Your task to perform on an android device: uninstall "DoorDash - Dasher" Image 0: 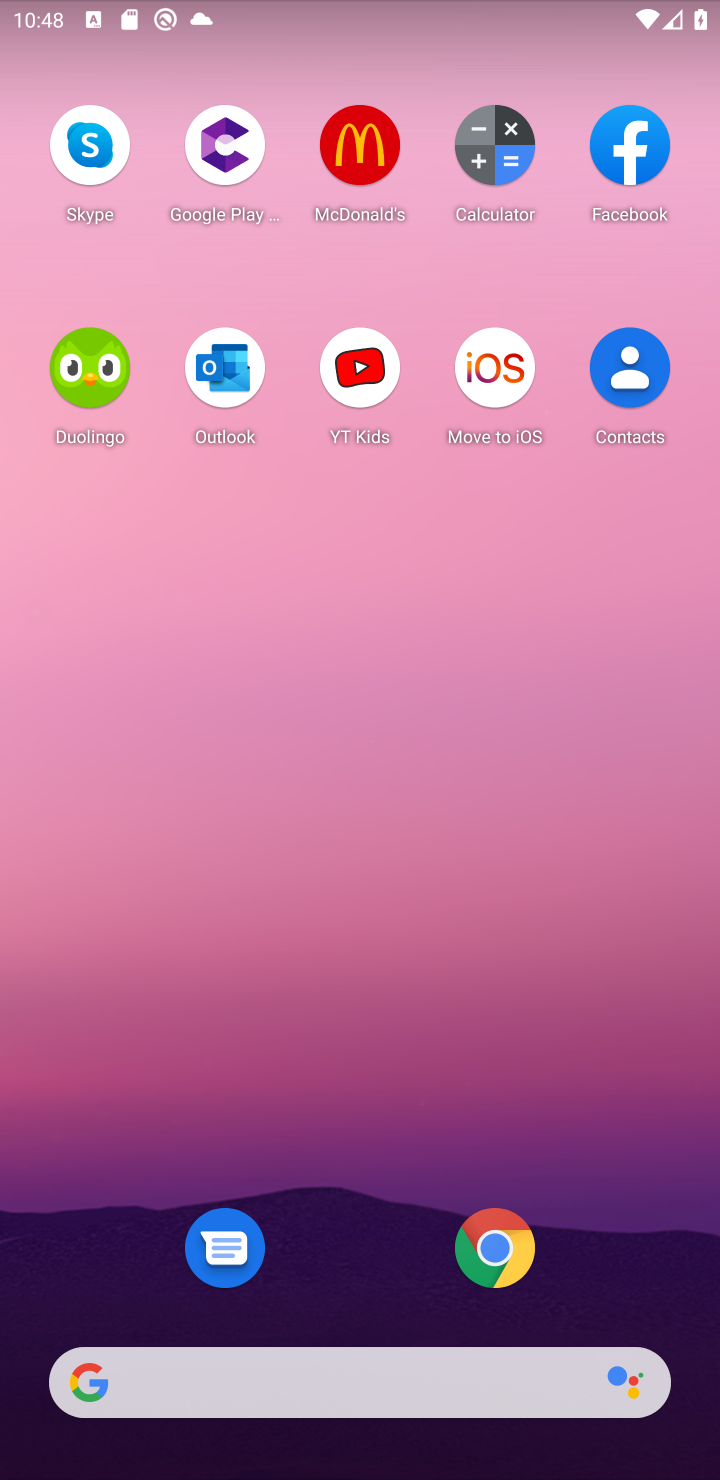
Step 0: drag from (360, 1158) to (434, 282)
Your task to perform on an android device: uninstall "DoorDash - Dasher" Image 1: 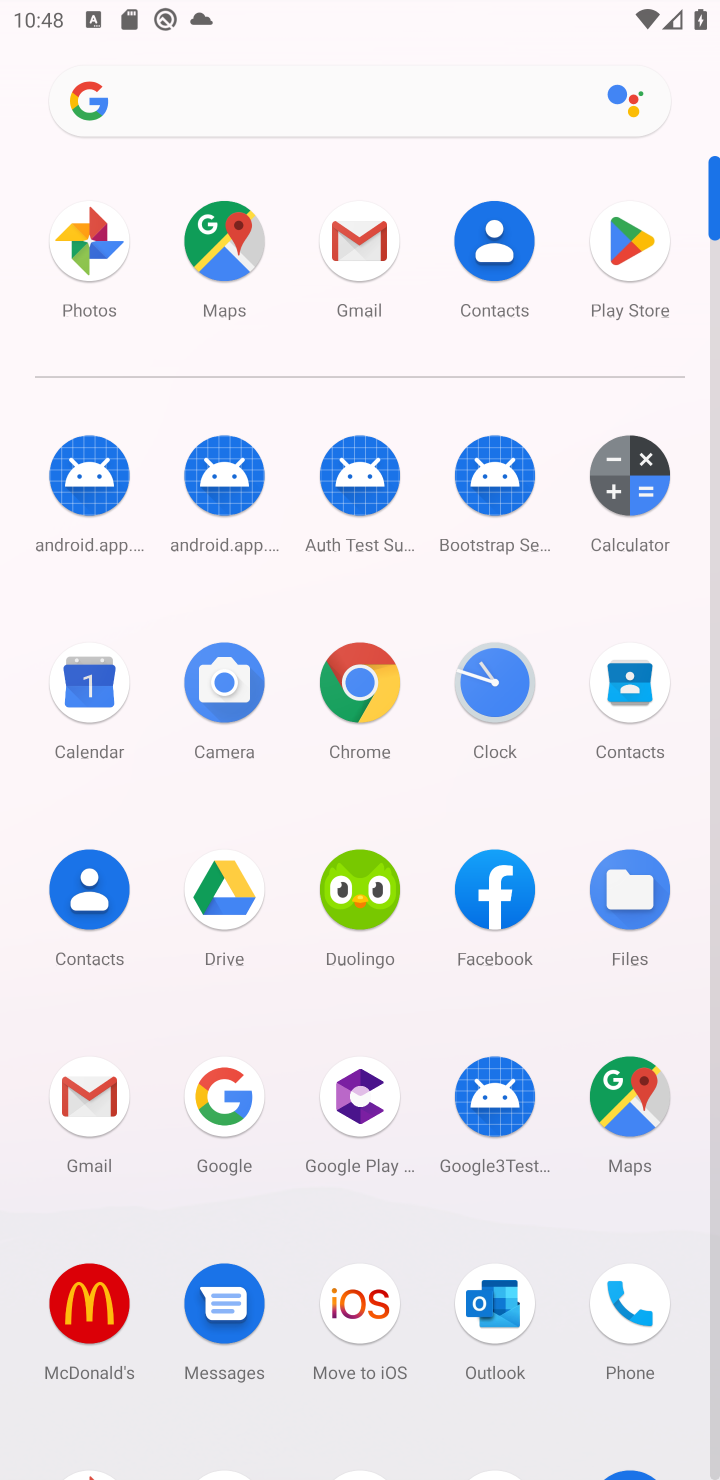
Step 1: drag from (415, 1187) to (436, 537)
Your task to perform on an android device: uninstall "DoorDash - Dasher" Image 2: 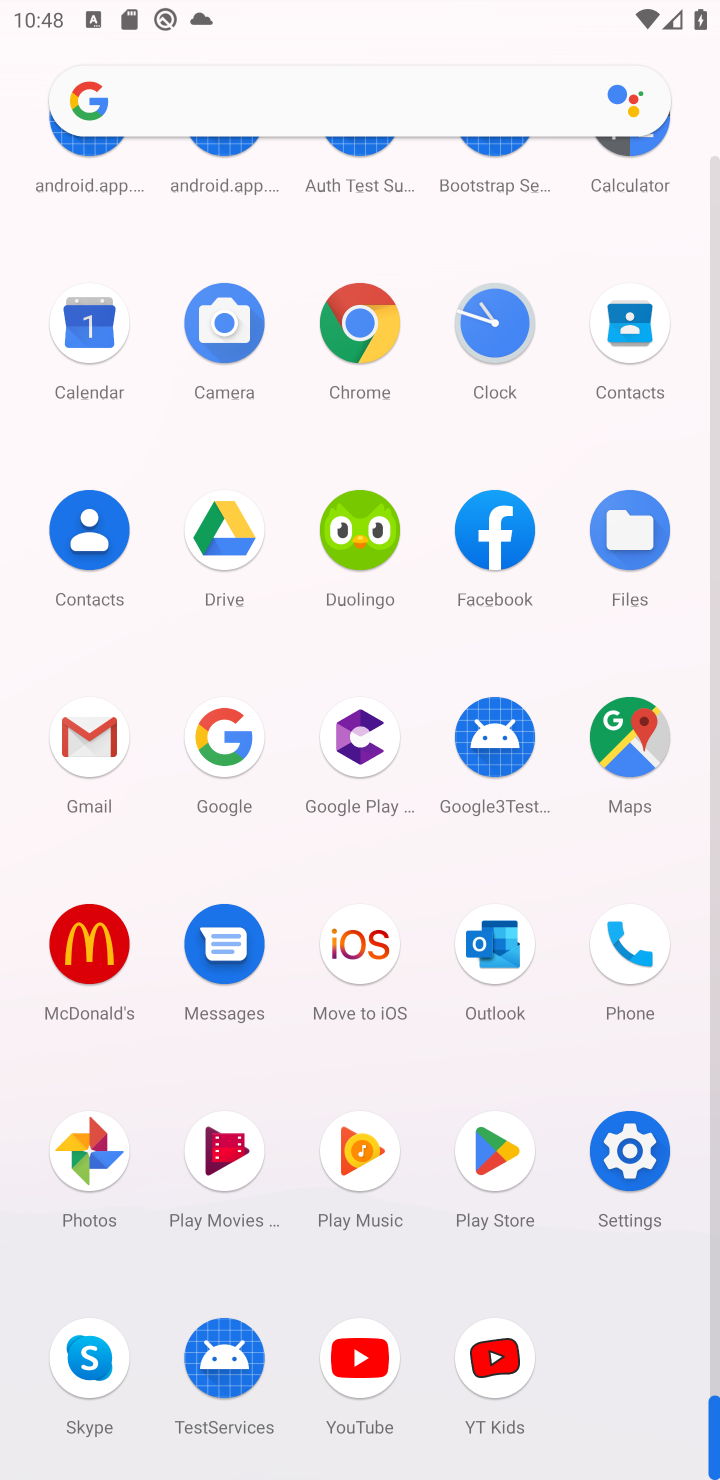
Step 2: click (519, 1148)
Your task to perform on an android device: uninstall "DoorDash - Dasher" Image 3: 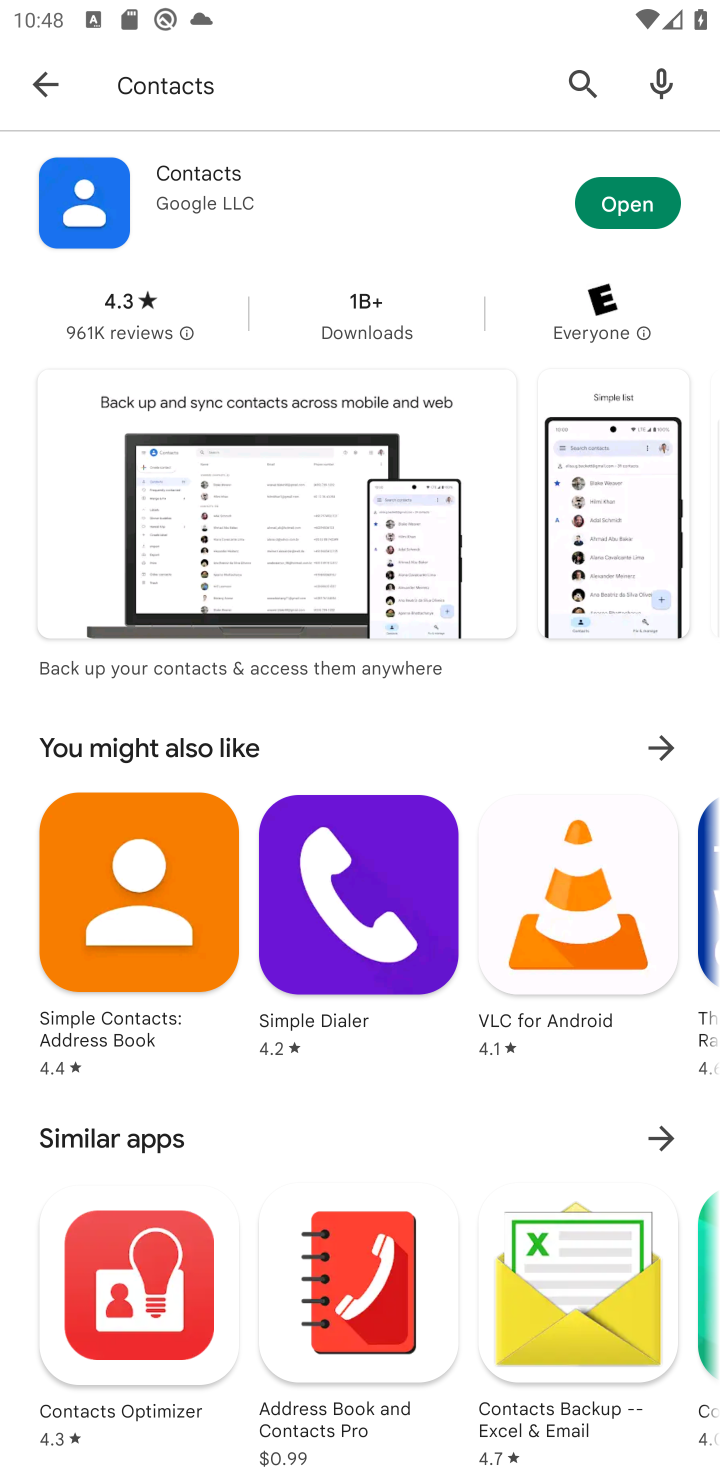
Step 3: click (266, 95)
Your task to perform on an android device: uninstall "DoorDash - Dasher" Image 4: 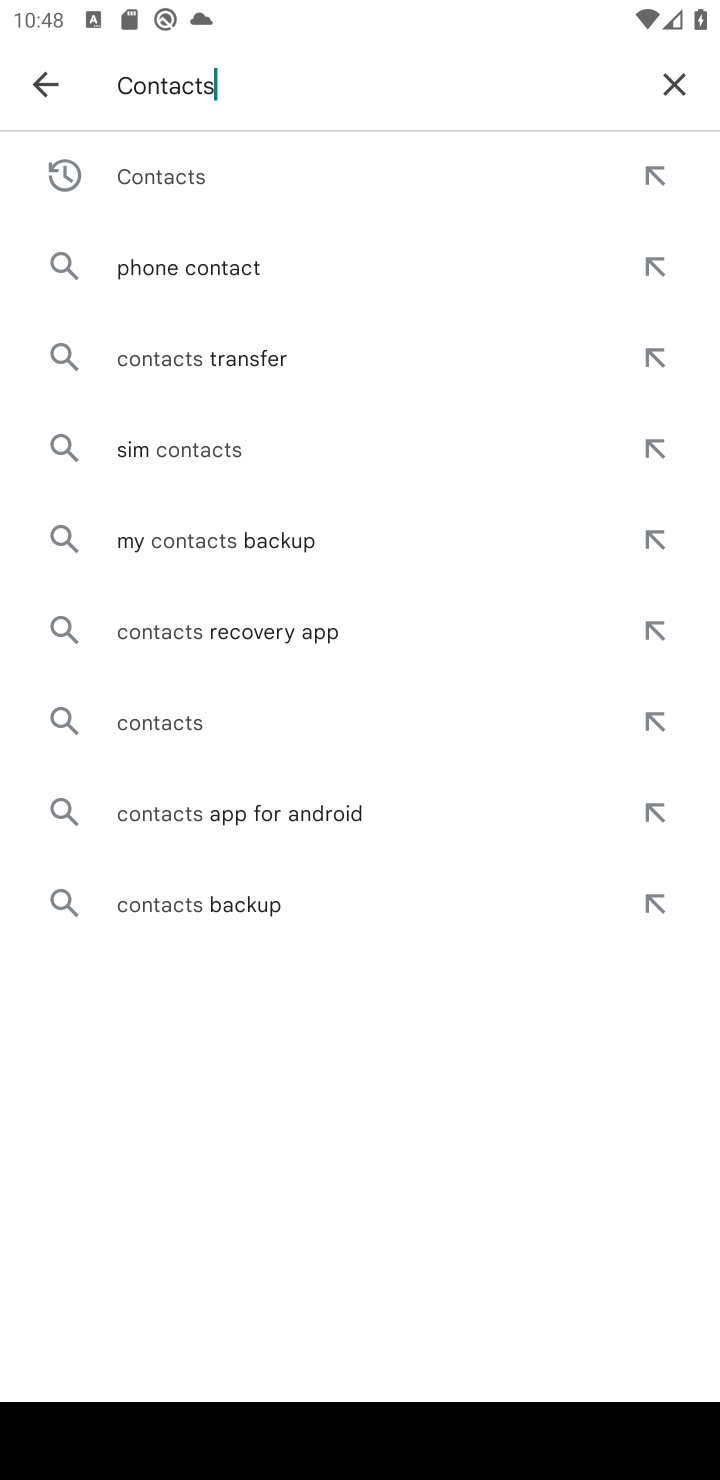
Step 4: click (682, 65)
Your task to perform on an android device: uninstall "DoorDash - Dasher" Image 5: 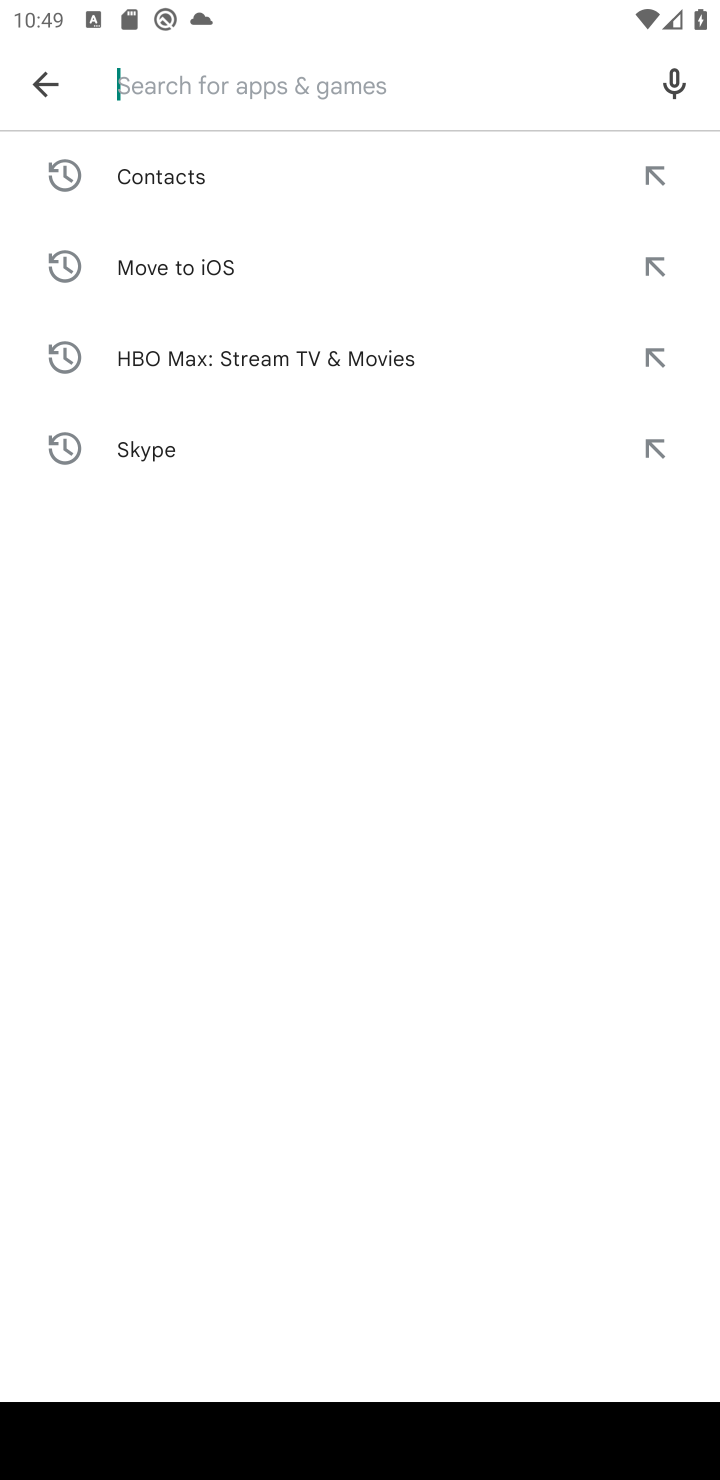
Step 5: type "DoorDash - Dasher"
Your task to perform on an android device: uninstall "DoorDash - Dasher" Image 6: 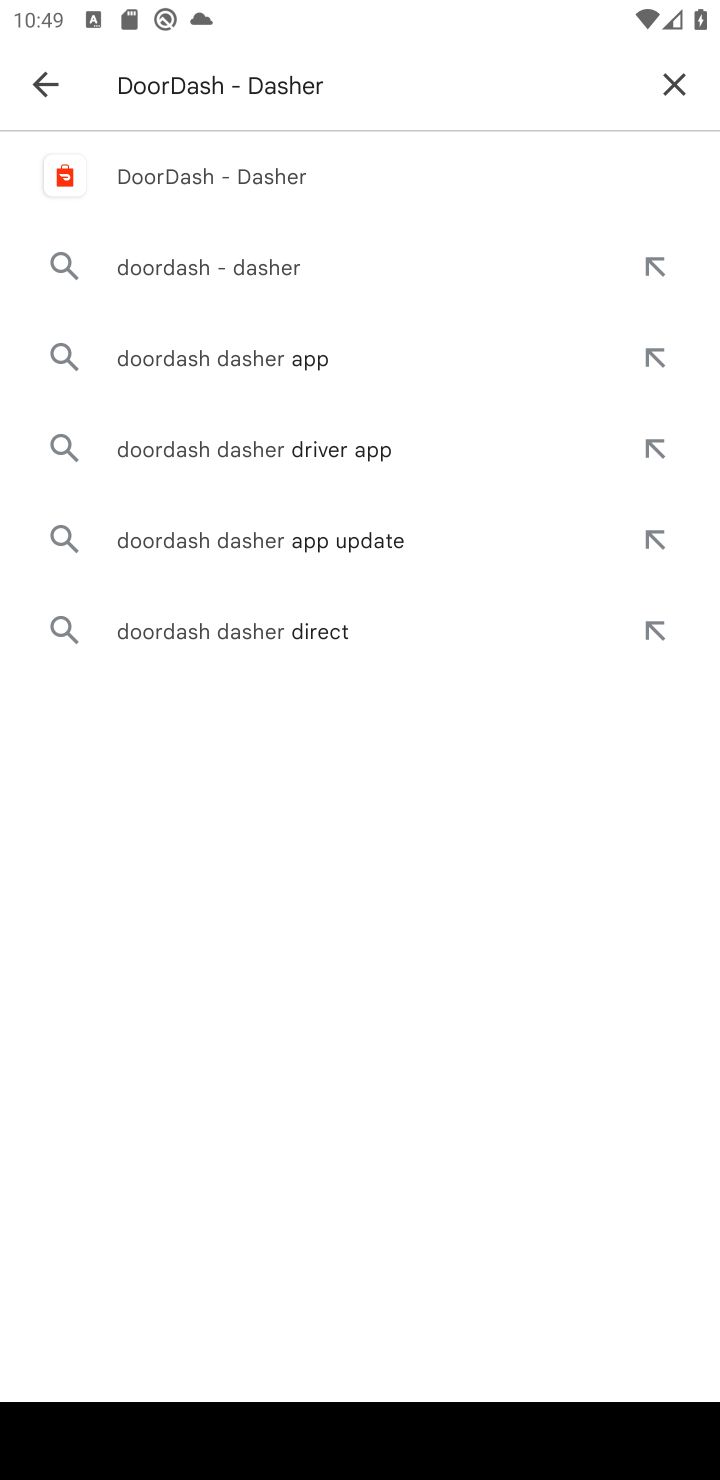
Step 6: press enter
Your task to perform on an android device: uninstall "DoorDash - Dasher" Image 7: 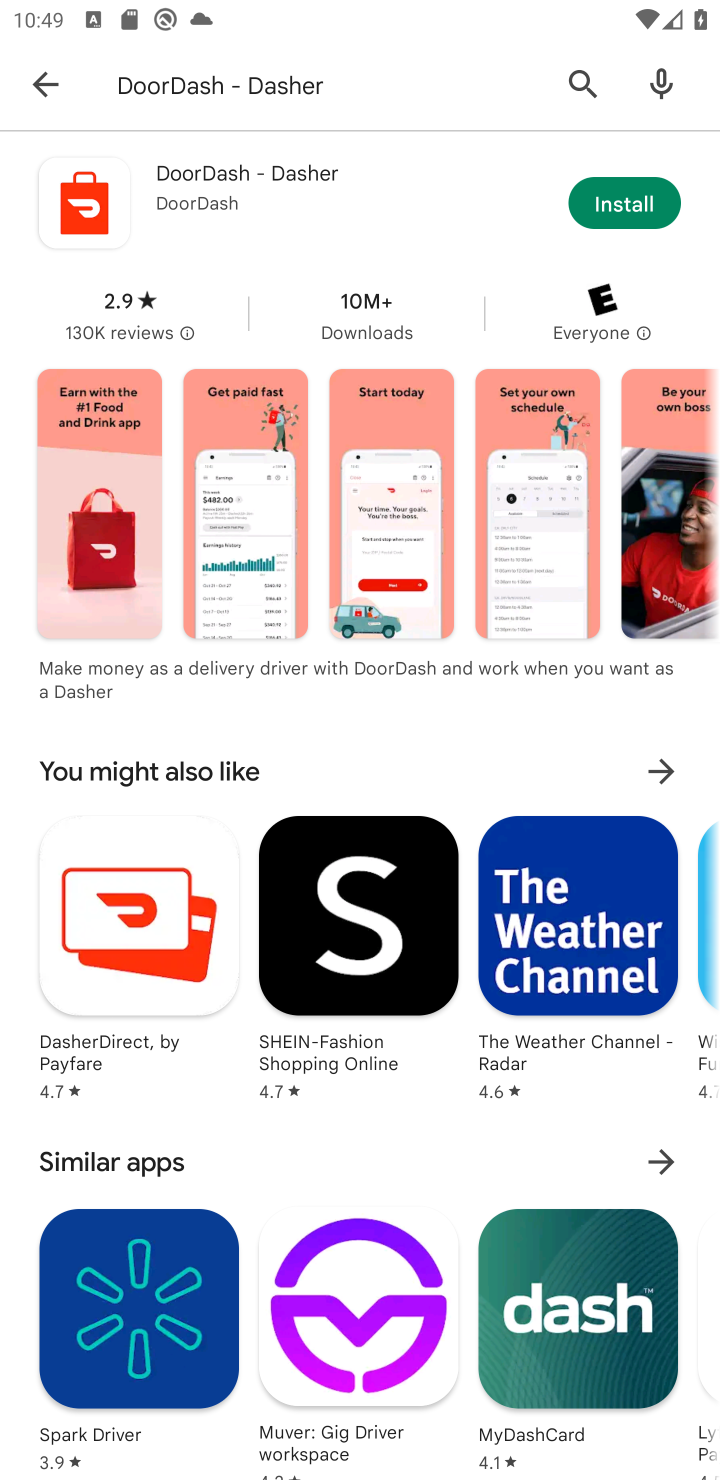
Step 7: task complete